Your task to perform on an android device: uninstall "Reddit" Image 0: 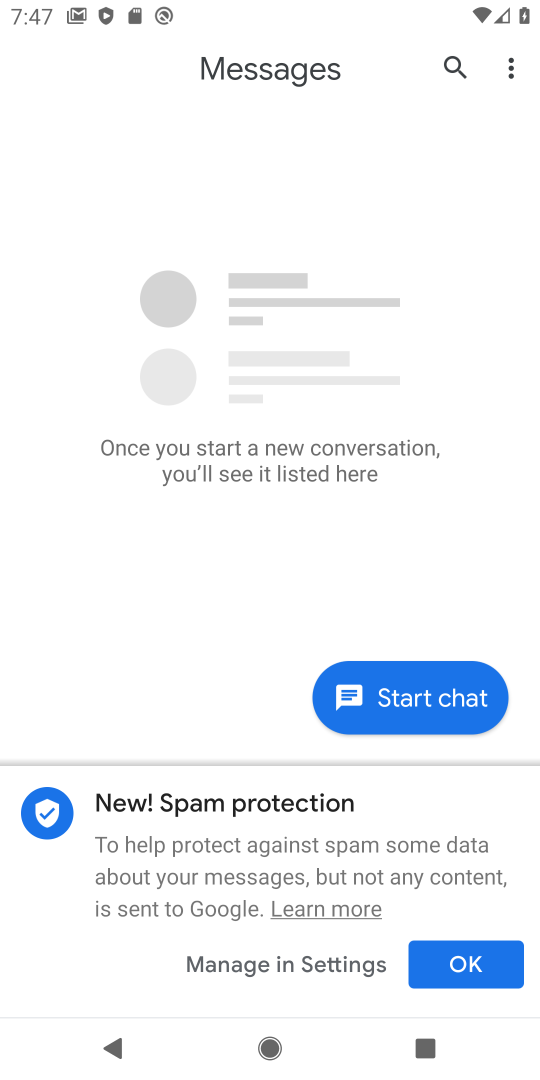
Step 0: press home button
Your task to perform on an android device: uninstall "Reddit" Image 1: 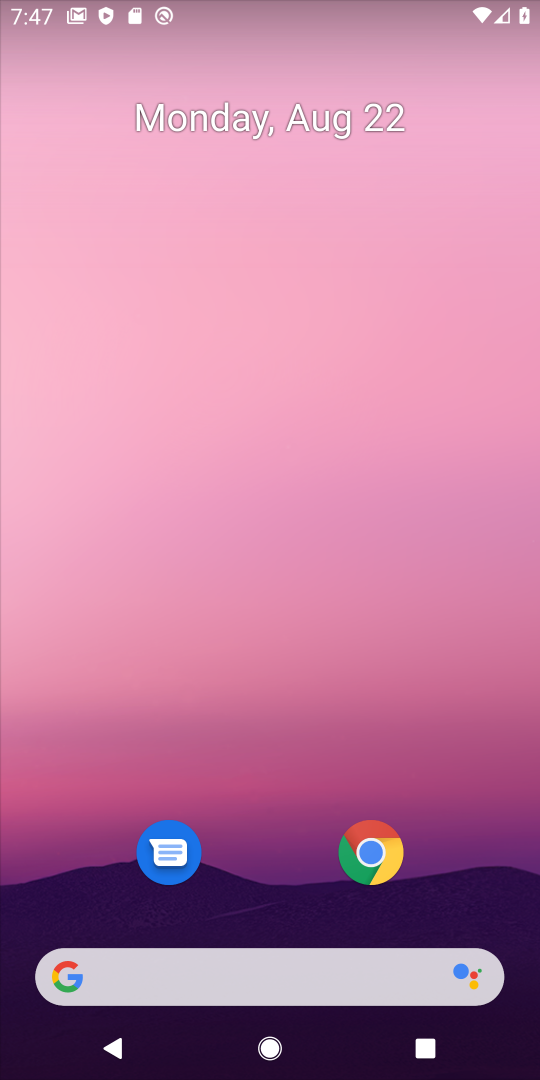
Step 1: drag from (329, 858) to (454, 311)
Your task to perform on an android device: uninstall "Reddit" Image 2: 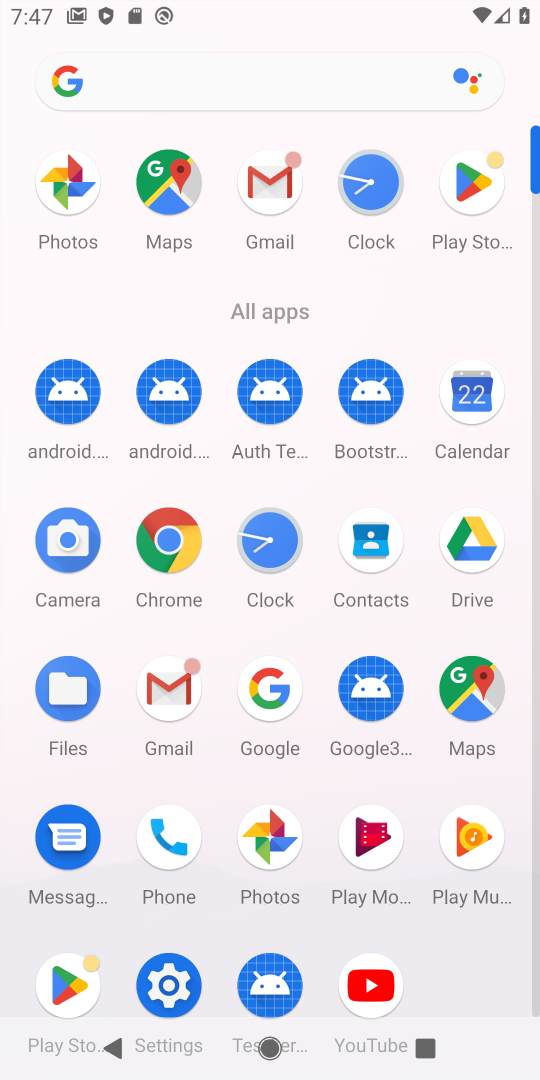
Step 2: click (485, 197)
Your task to perform on an android device: uninstall "Reddit" Image 3: 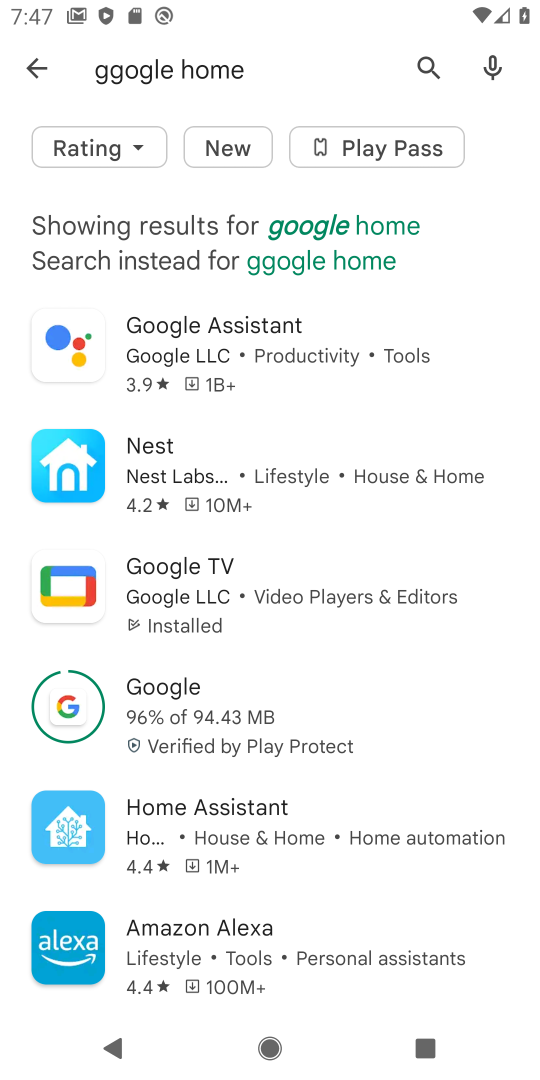
Step 3: click (221, 66)
Your task to perform on an android device: uninstall "Reddit" Image 4: 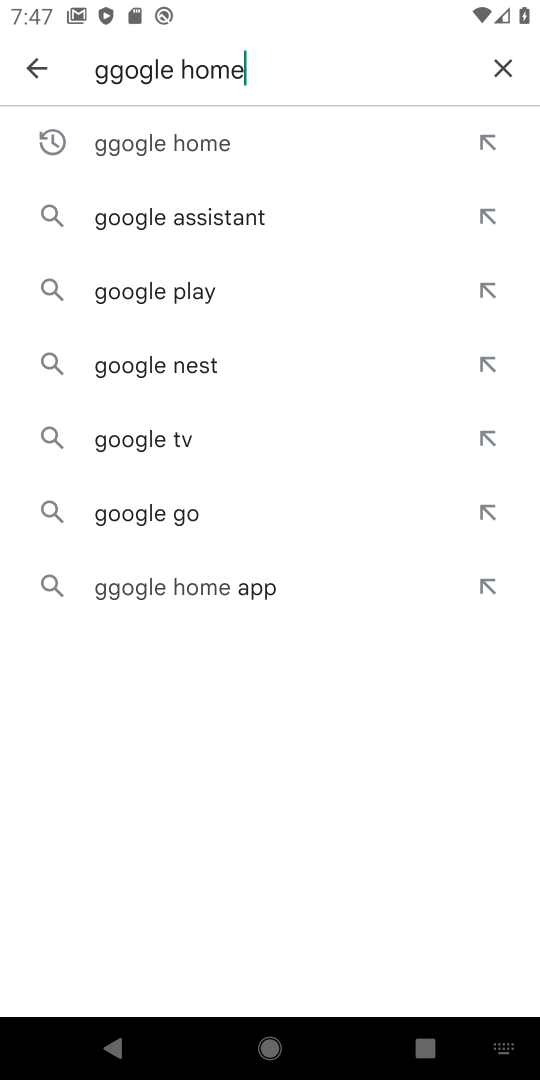
Step 4: click (485, 67)
Your task to perform on an android device: uninstall "Reddit" Image 5: 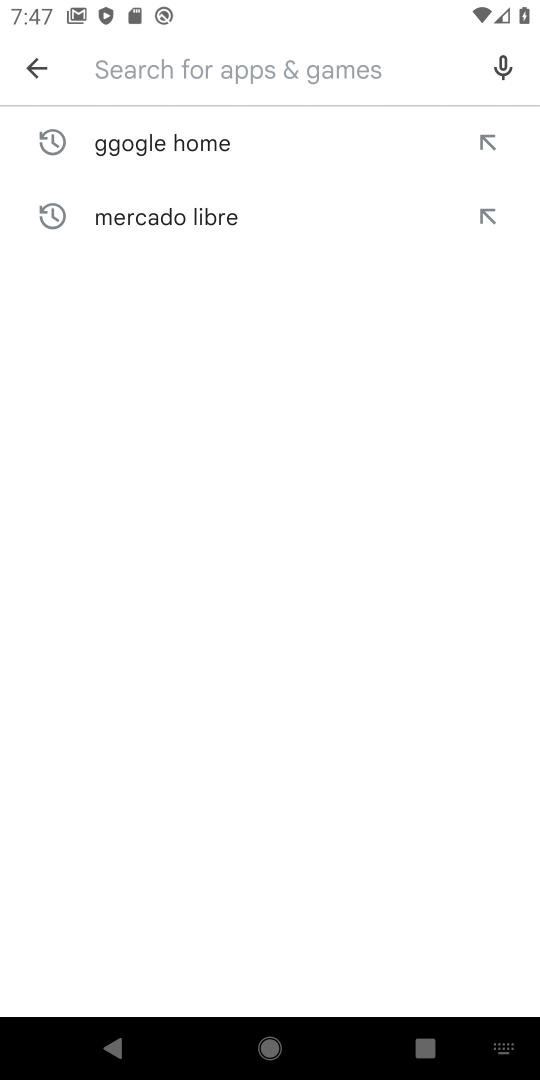
Step 5: type "Reddit"
Your task to perform on an android device: uninstall "Reddit" Image 6: 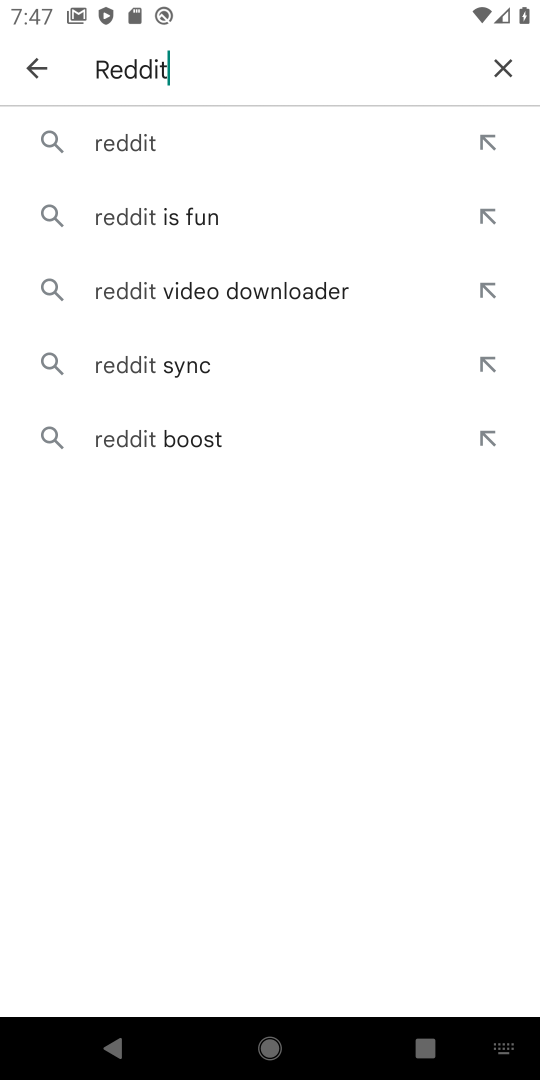
Step 6: click (136, 134)
Your task to perform on an android device: uninstall "Reddit" Image 7: 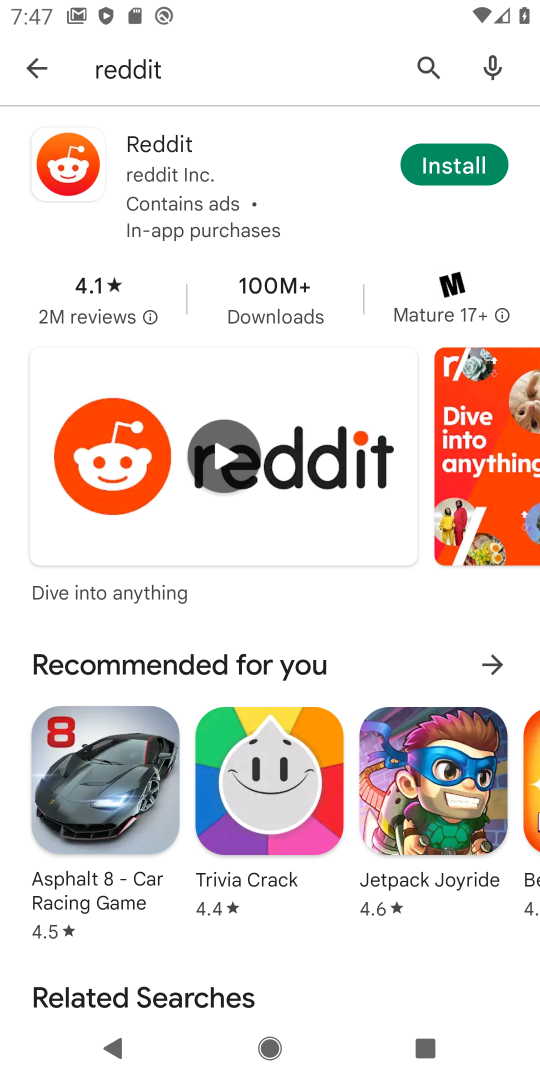
Step 7: task complete